Your task to perform on an android device: Set the phone to "Do not disturb". Image 0: 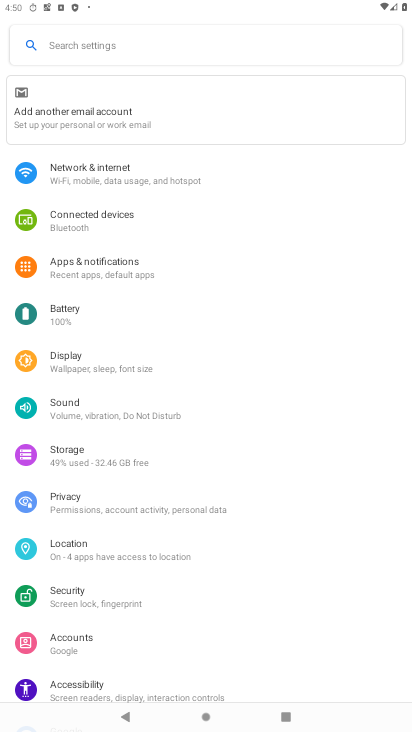
Step 0: click (113, 417)
Your task to perform on an android device: Set the phone to "Do not disturb". Image 1: 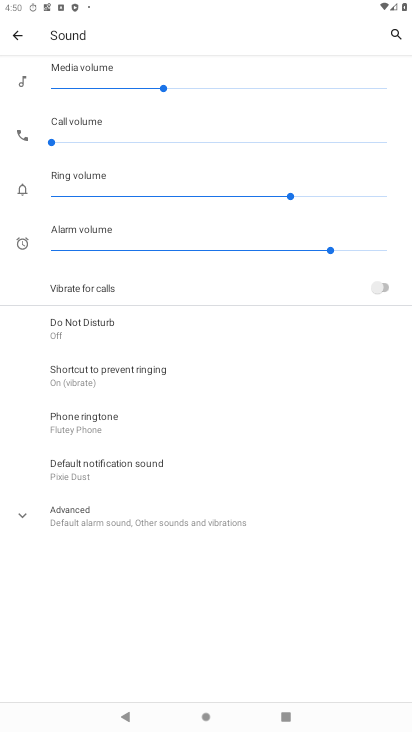
Step 1: click (103, 330)
Your task to perform on an android device: Set the phone to "Do not disturb". Image 2: 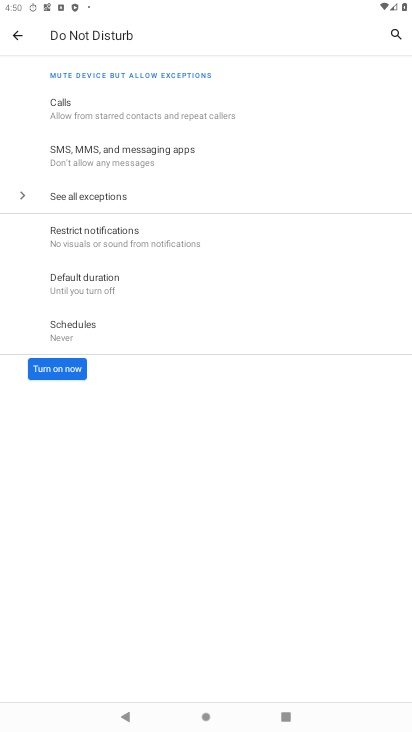
Step 2: click (45, 373)
Your task to perform on an android device: Set the phone to "Do not disturb". Image 3: 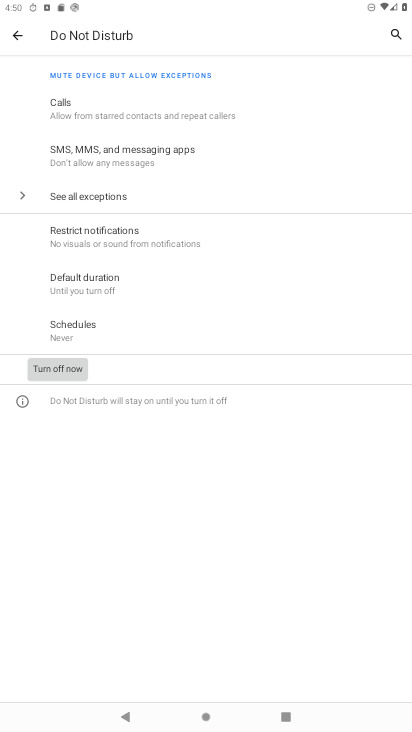
Step 3: task complete